Your task to perform on an android device: add a contact Image 0: 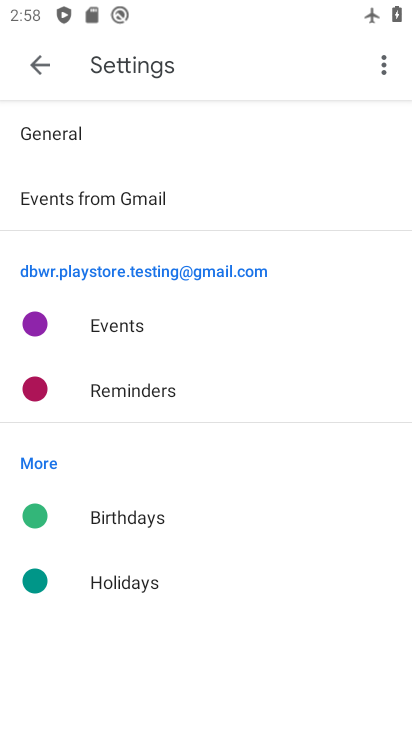
Step 0: press home button
Your task to perform on an android device: add a contact Image 1: 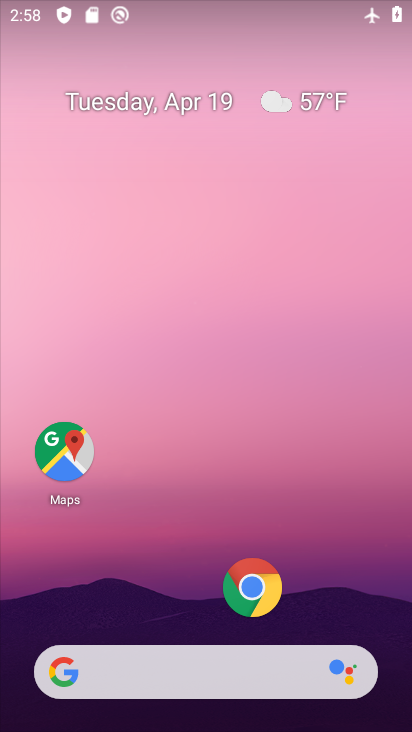
Step 1: drag from (134, 585) to (256, 9)
Your task to perform on an android device: add a contact Image 2: 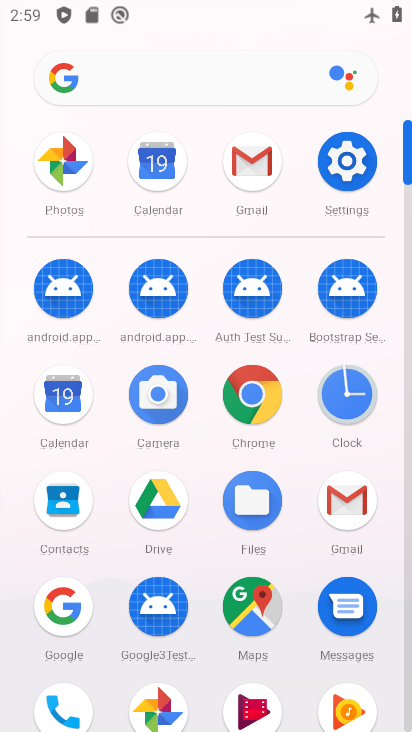
Step 2: click (56, 519)
Your task to perform on an android device: add a contact Image 3: 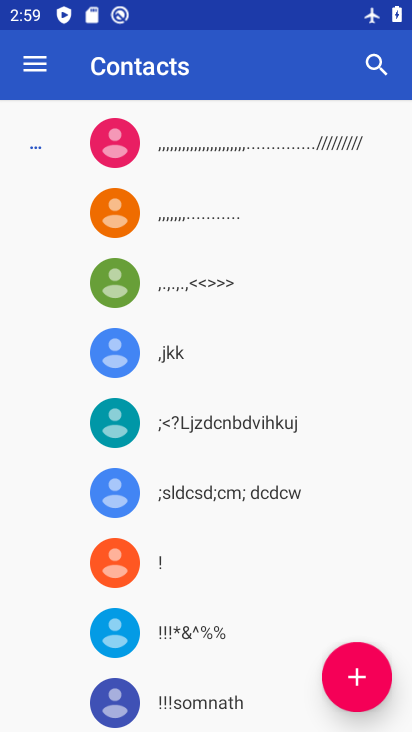
Step 3: click (361, 670)
Your task to perform on an android device: add a contact Image 4: 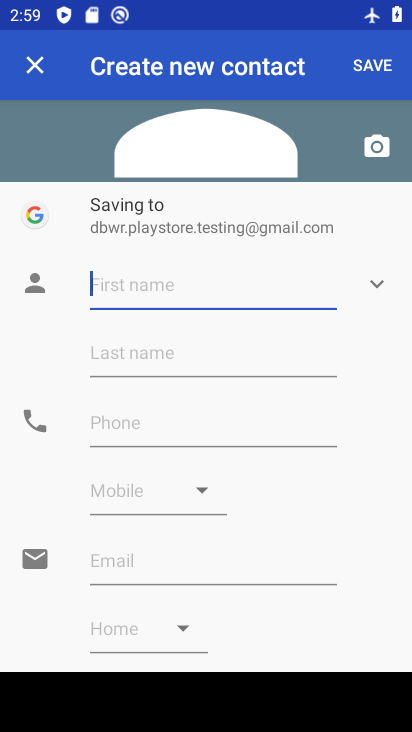
Step 4: type "aries"
Your task to perform on an android device: add a contact Image 5: 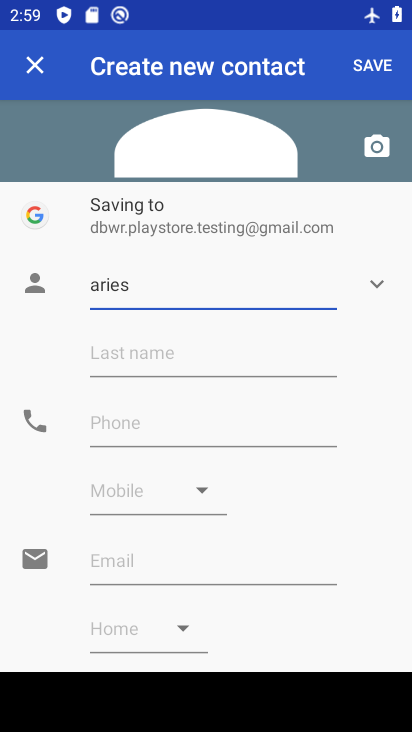
Step 5: click (376, 67)
Your task to perform on an android device: add a contact Image 6: 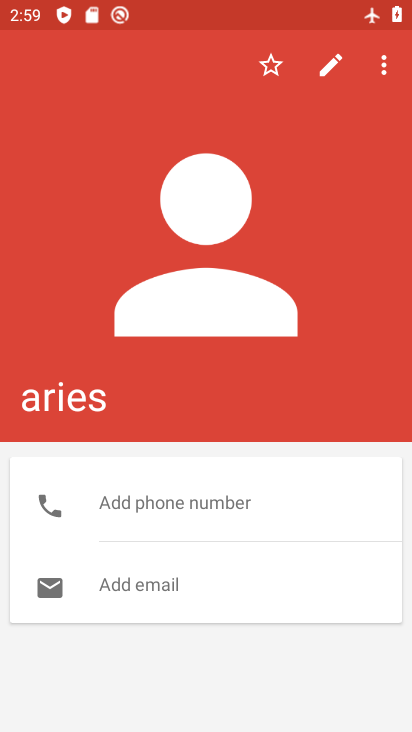
Step 6: task complete